Your task to perform on an android device: Is it going to rain tomorrow? Image 0: 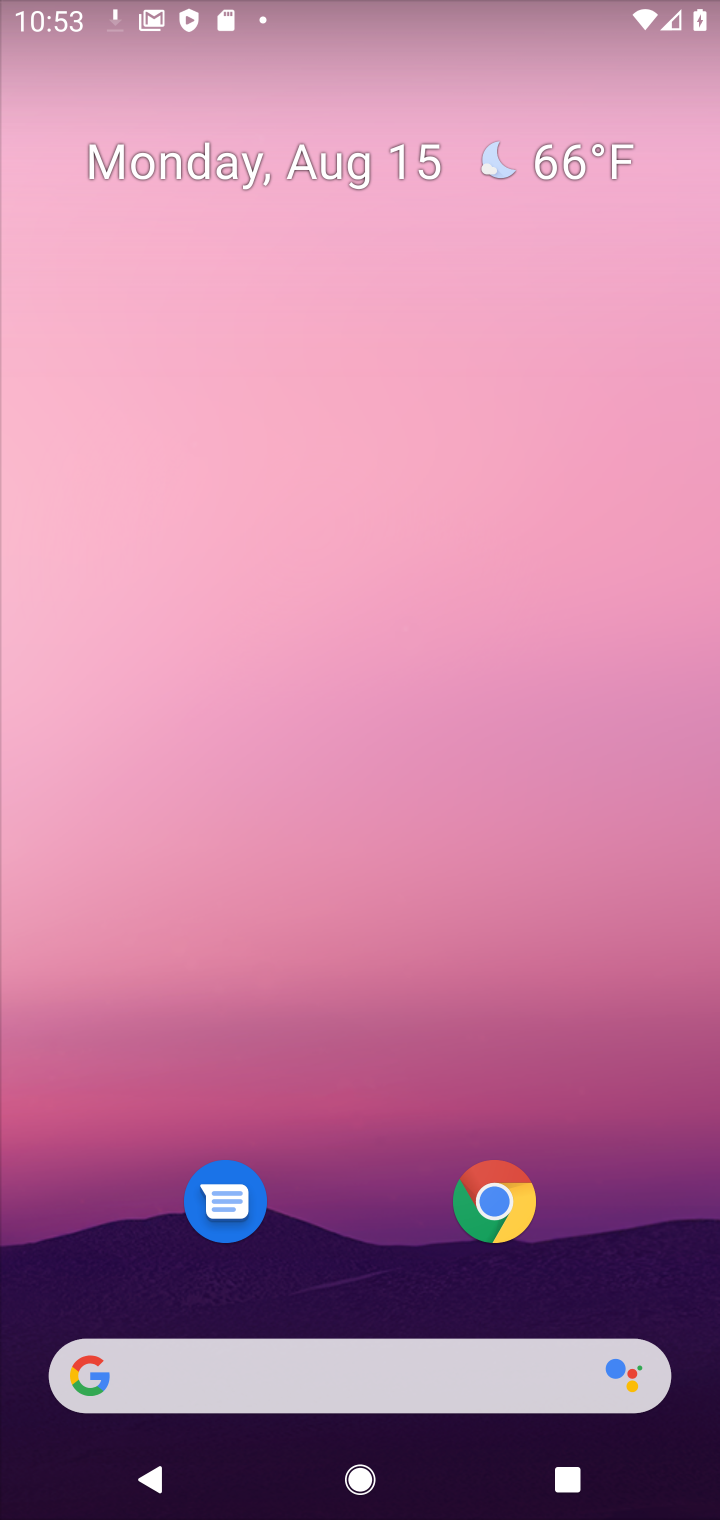
Step 0: drag from (322, 646) to (322, 416)
Your task to perform on an android device: Is it going to rain tomorrow? Image 1: 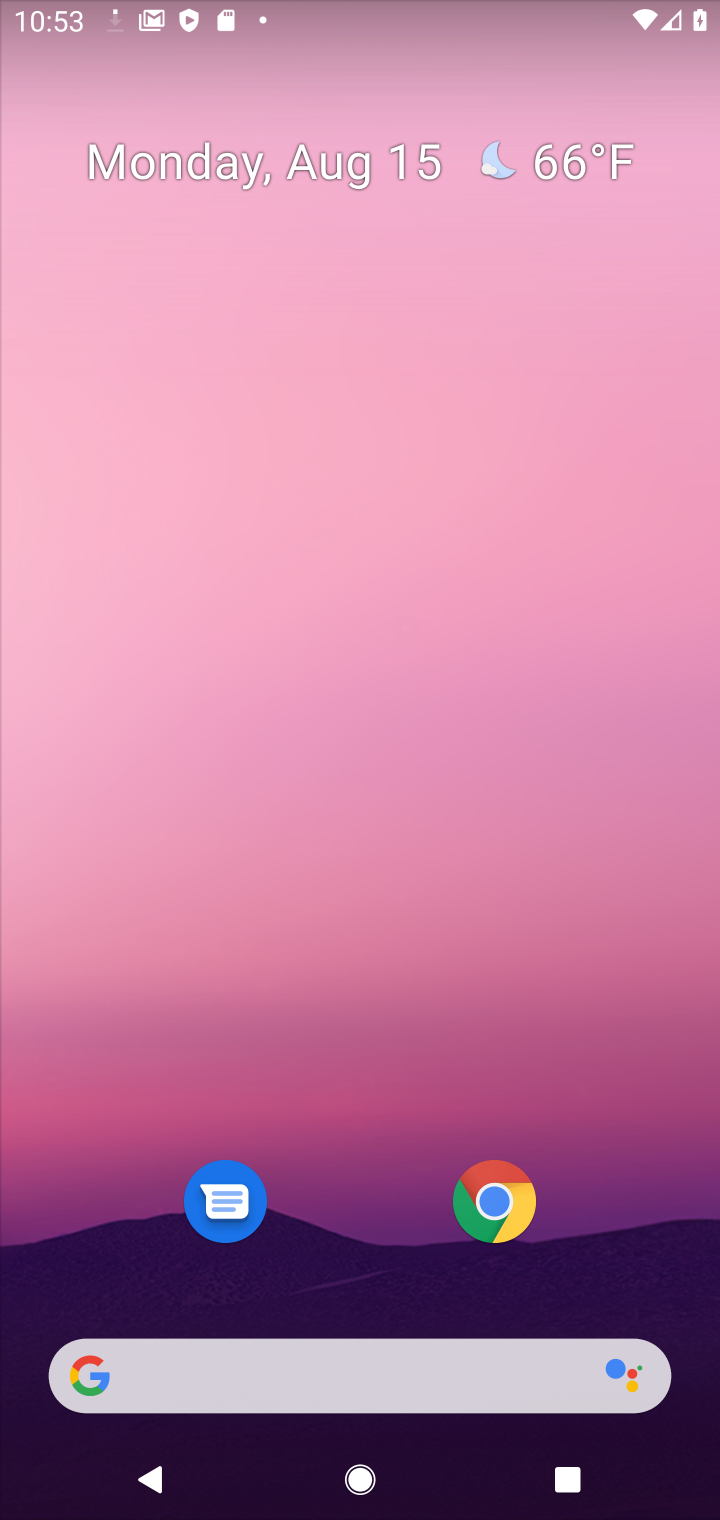
Step 1: click (361, 475)
Your task to perform on an android device: Is it going to rain tomorrow? Image 2: 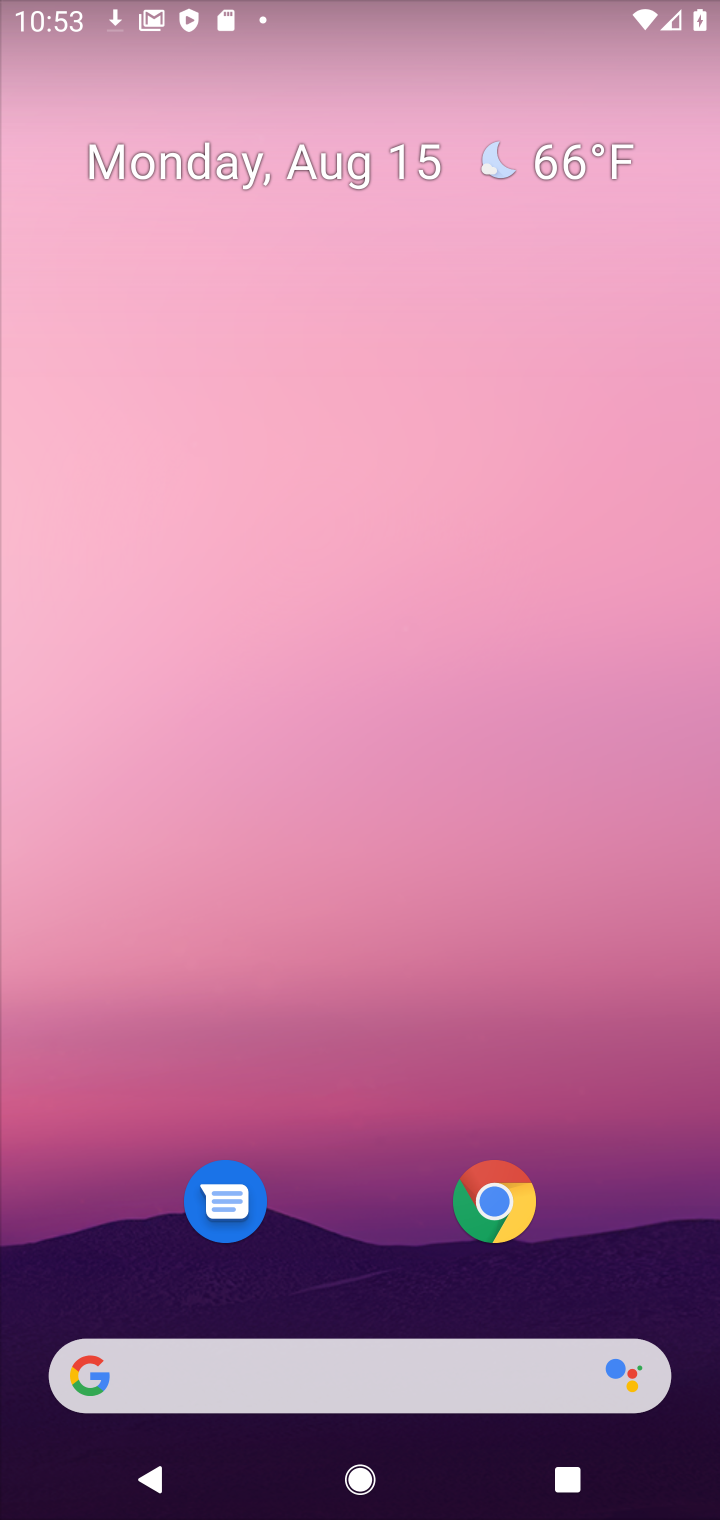
Step 2: drag from (360, 262) to (577, 24)
Your task to perform on an android device: Is it going to rain tomorrow? Image 3: 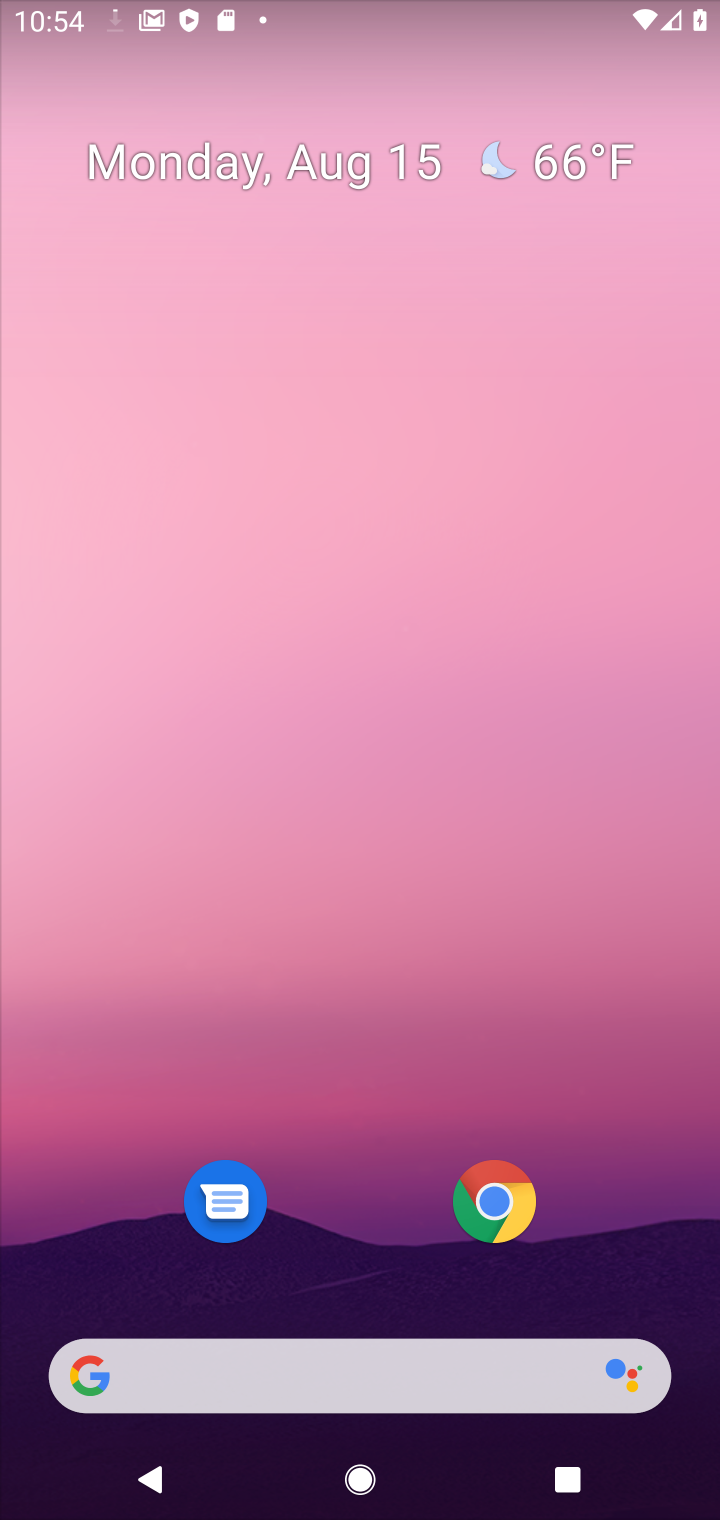
Step 3: drag from (454, 105) to (687, 615)
Your task to perform on an android device: Is it going to rain tomorrow? Image 4: 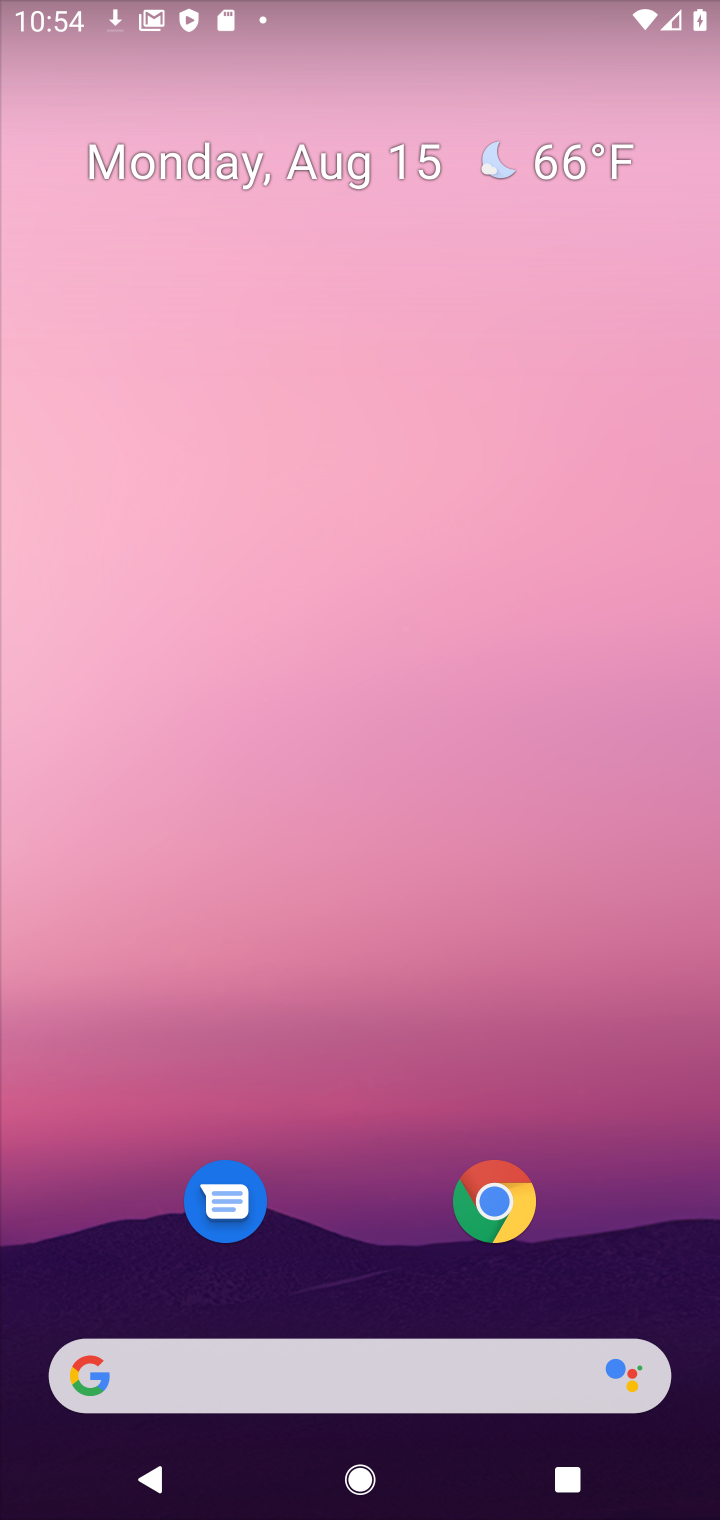
Step 4: drag from (414, 395) to (523, 0)
Your task to perform on an android device: Is it going to rain tomorrow? Image 5: 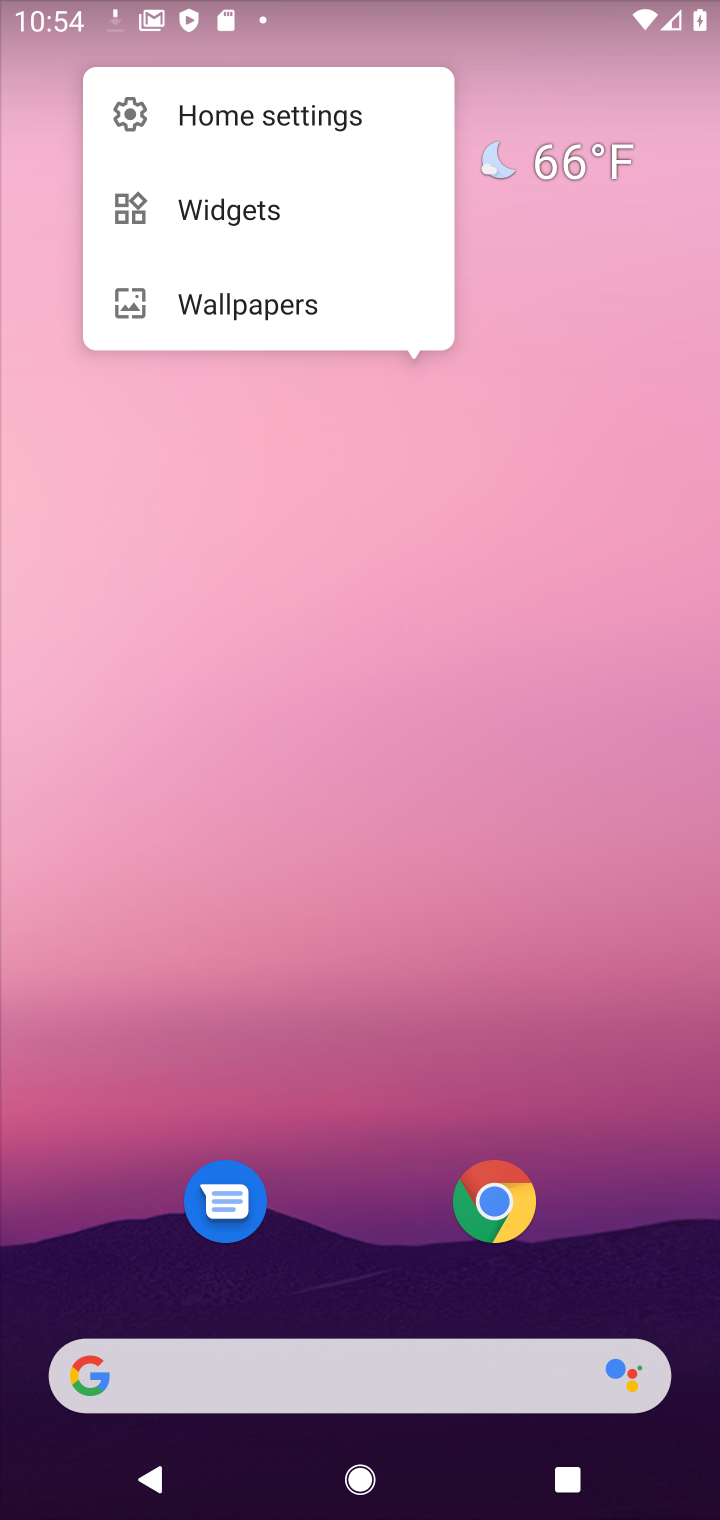
Step 5: click (463, 1242)
Your task to perform on an android device: Is it going to rain tomorrow? Image 6: 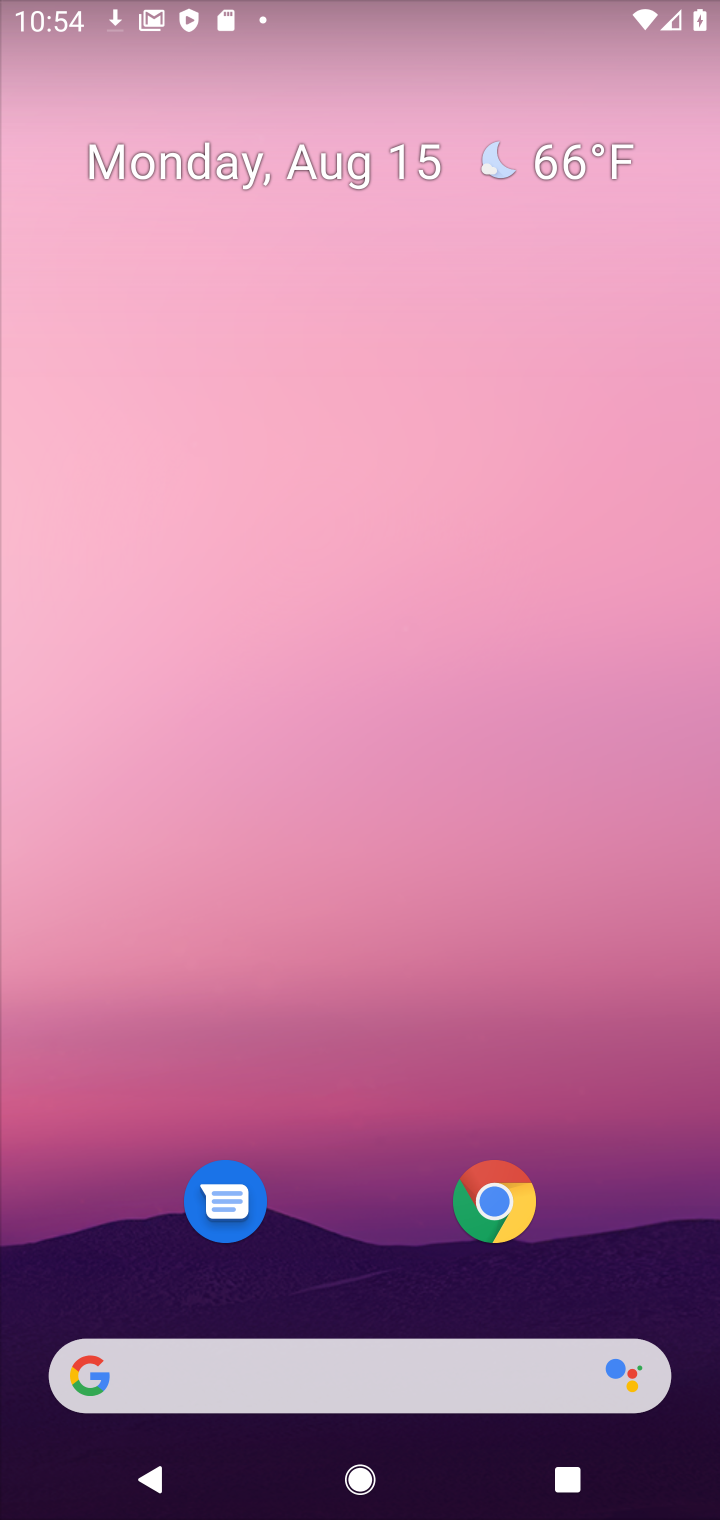
Step 6: drag from (177, 1364) to (675, 42)
Your task to perform on an android device: Is it going to rain tomorrow? Image 7: 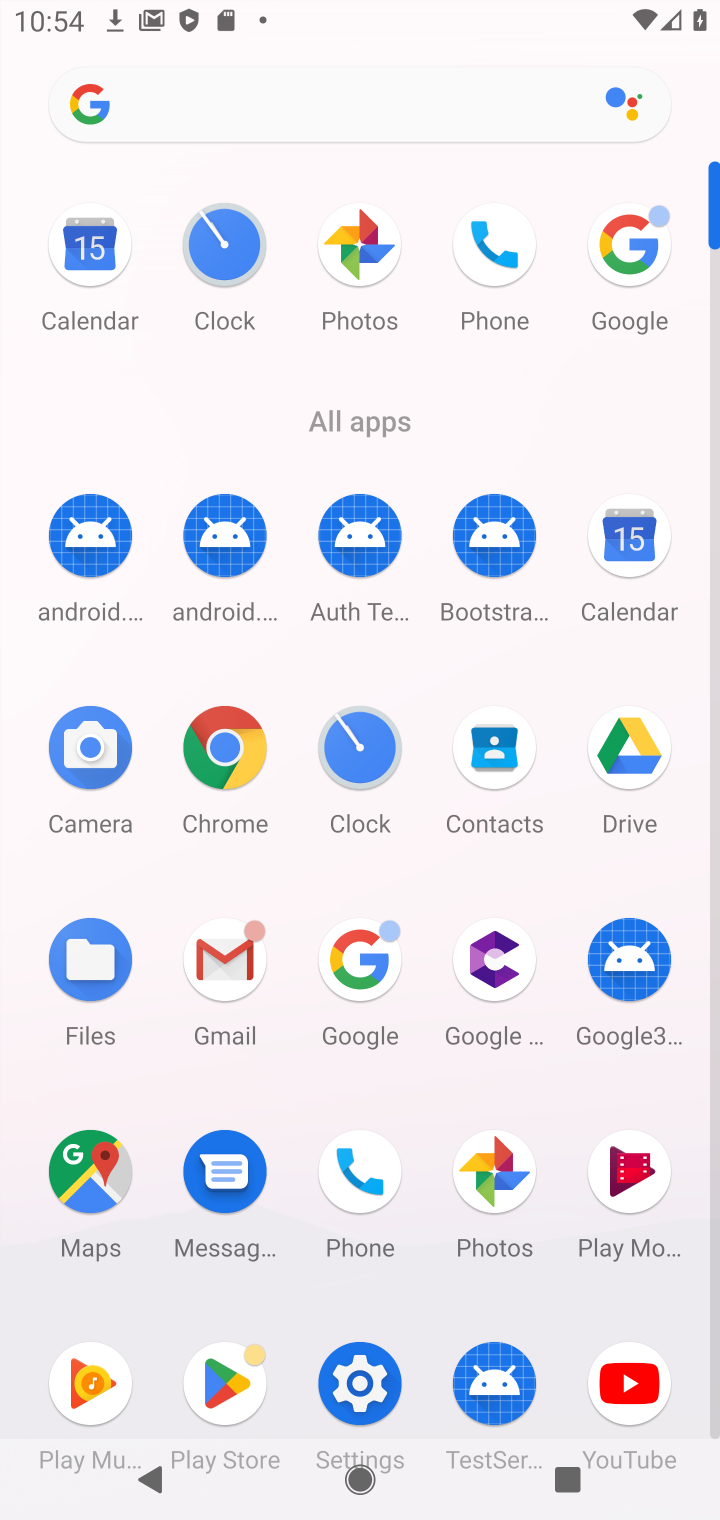
Step 7: click (368, 942)
Your task to perform on an android device: Is it going to rain tomorrow? Image 8: 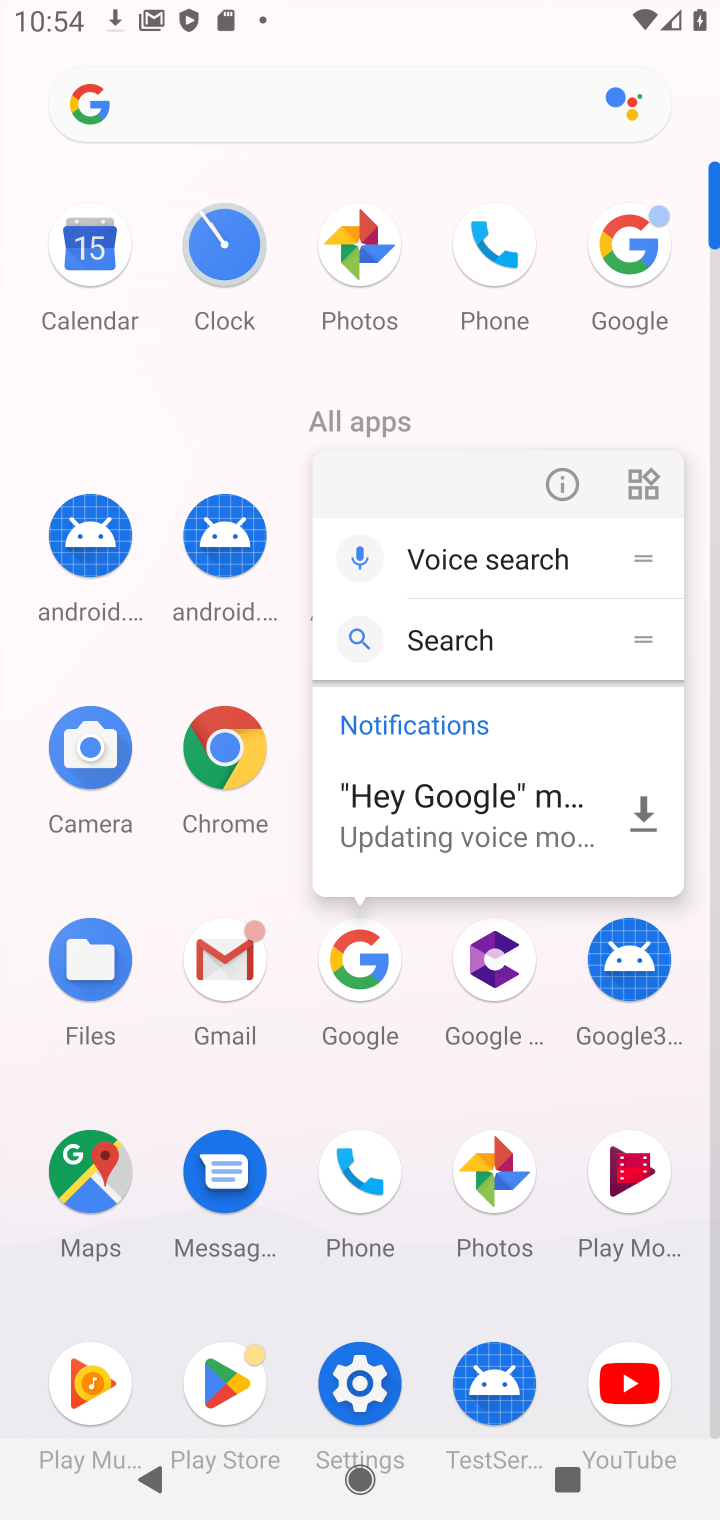
Step 8: click (345, 942)
Your task to perform on an android device: Is it going to rain tomorrow? Image 9: 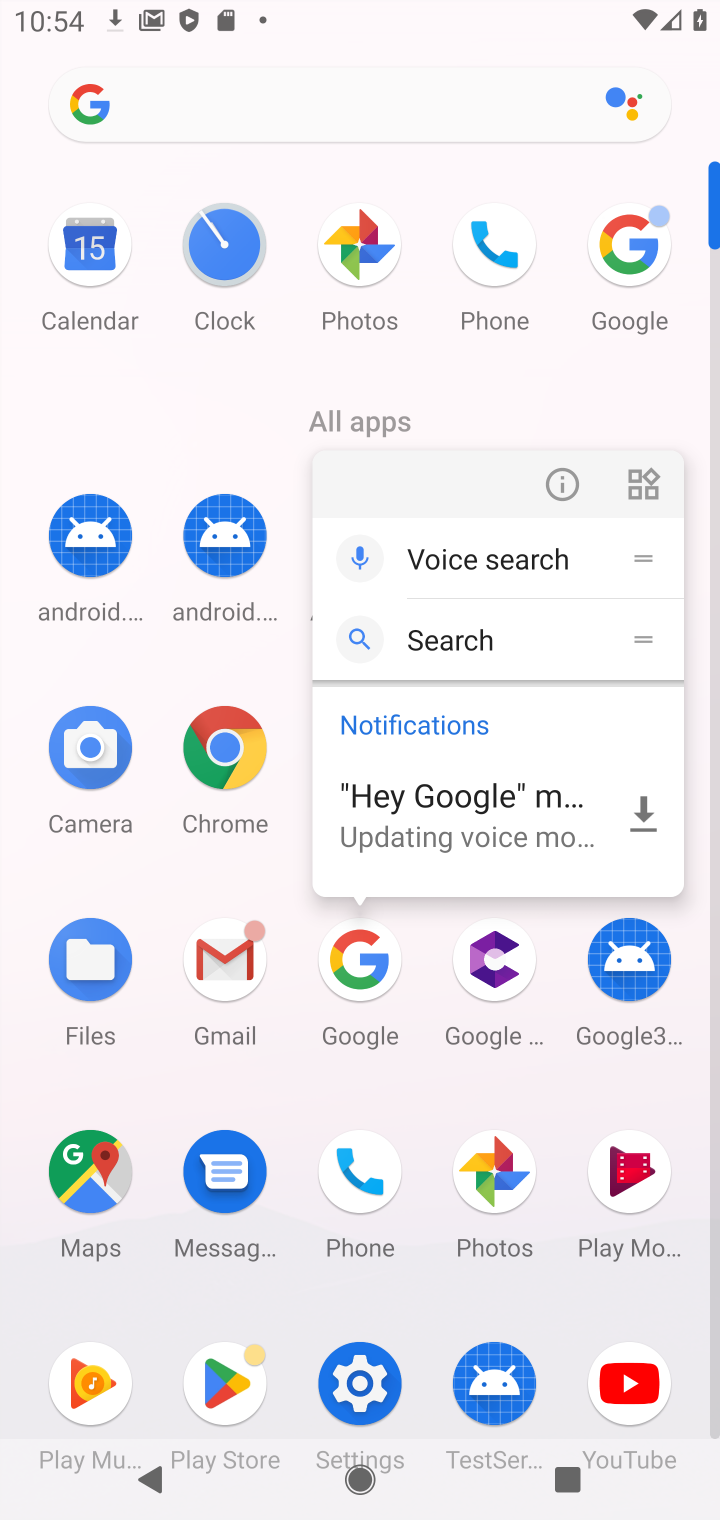
Step 9: click (358, 949)
Your task to perform on an android device: Is it going to rain tomorrow? Image 10: 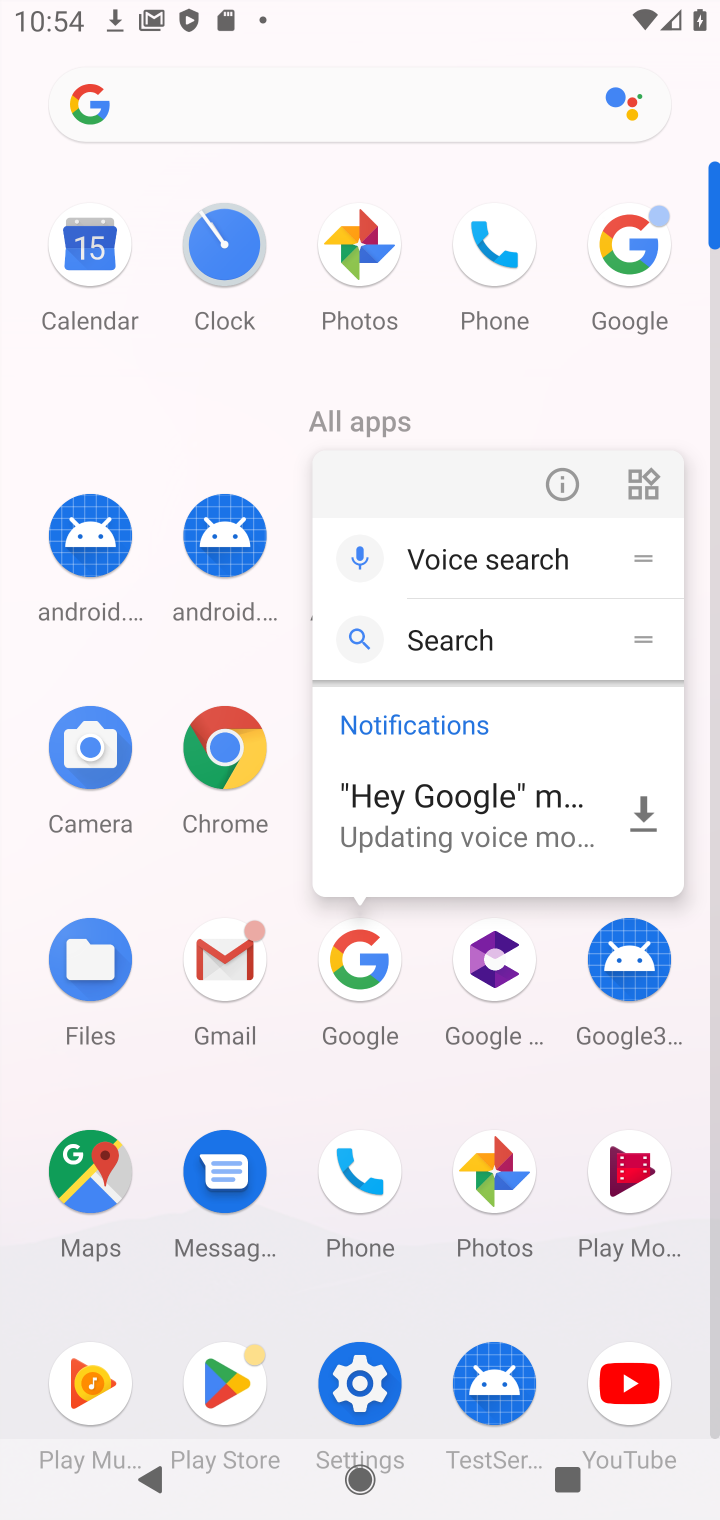
Step 10: click (363, 967)
Your task to perform on an android device: Is it going to rain tomorrow? Image 11: 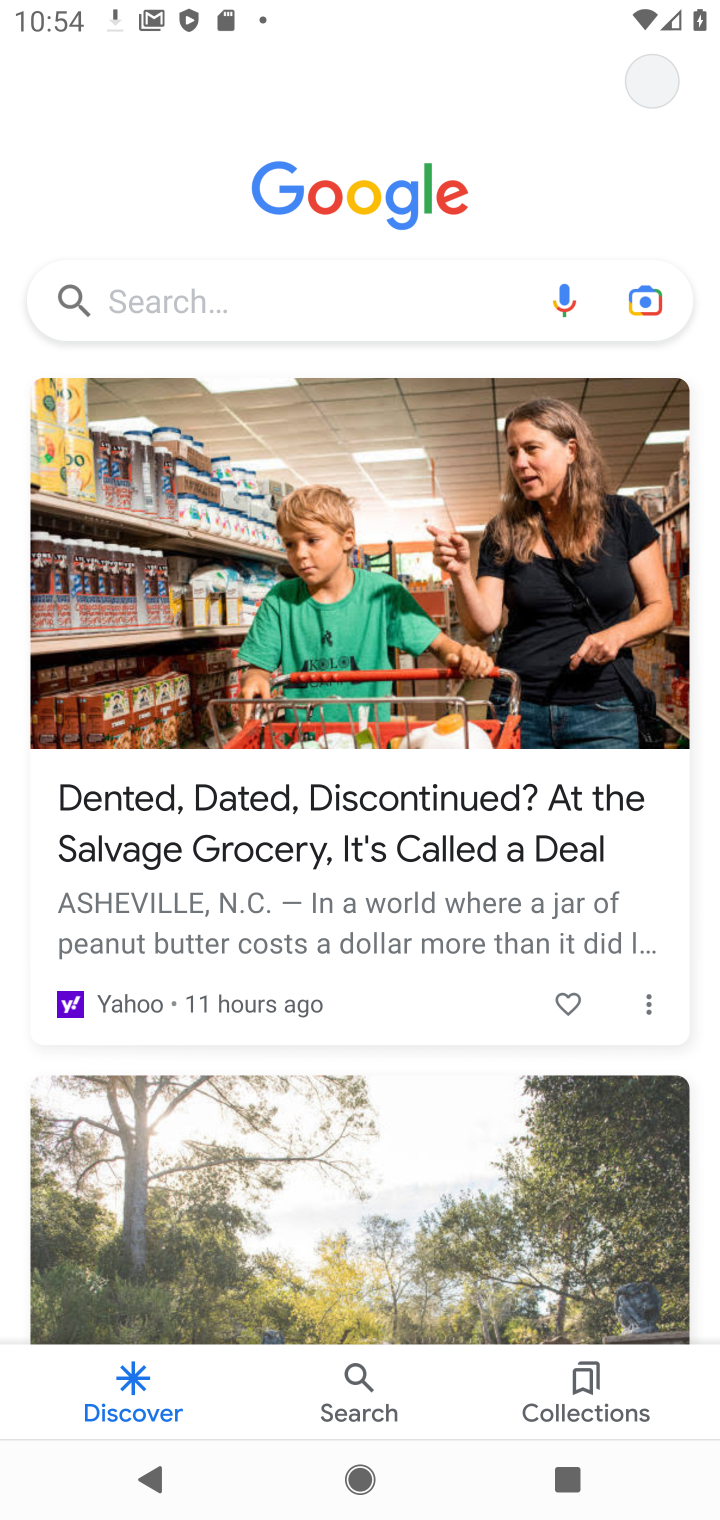
Step 11: click (306, 309)
Your task to perform on an android device: Is it going to rain tomorrow? Image 12: 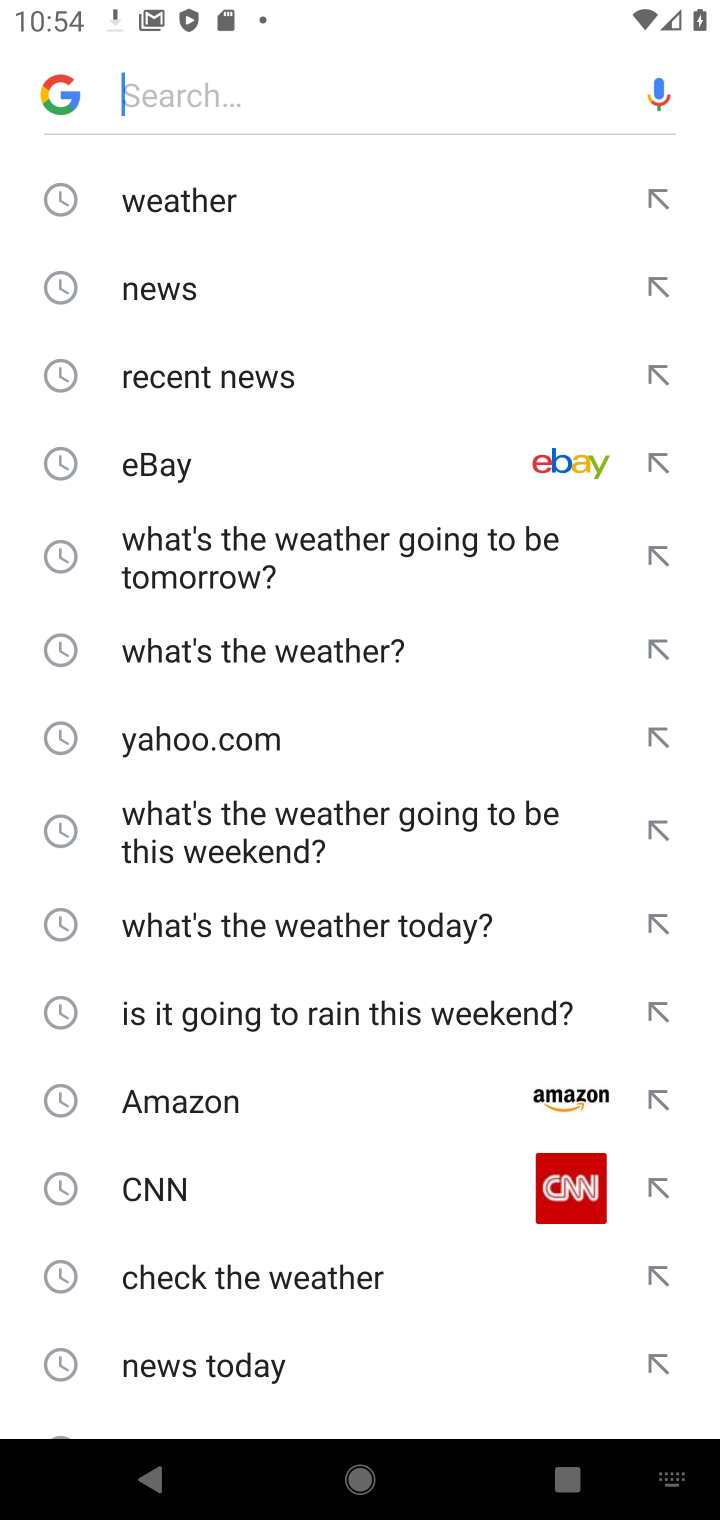
Step 12: click (226, 1013)
Your task to perform on an android device: Is it going to rain tomorrow? Image 13: 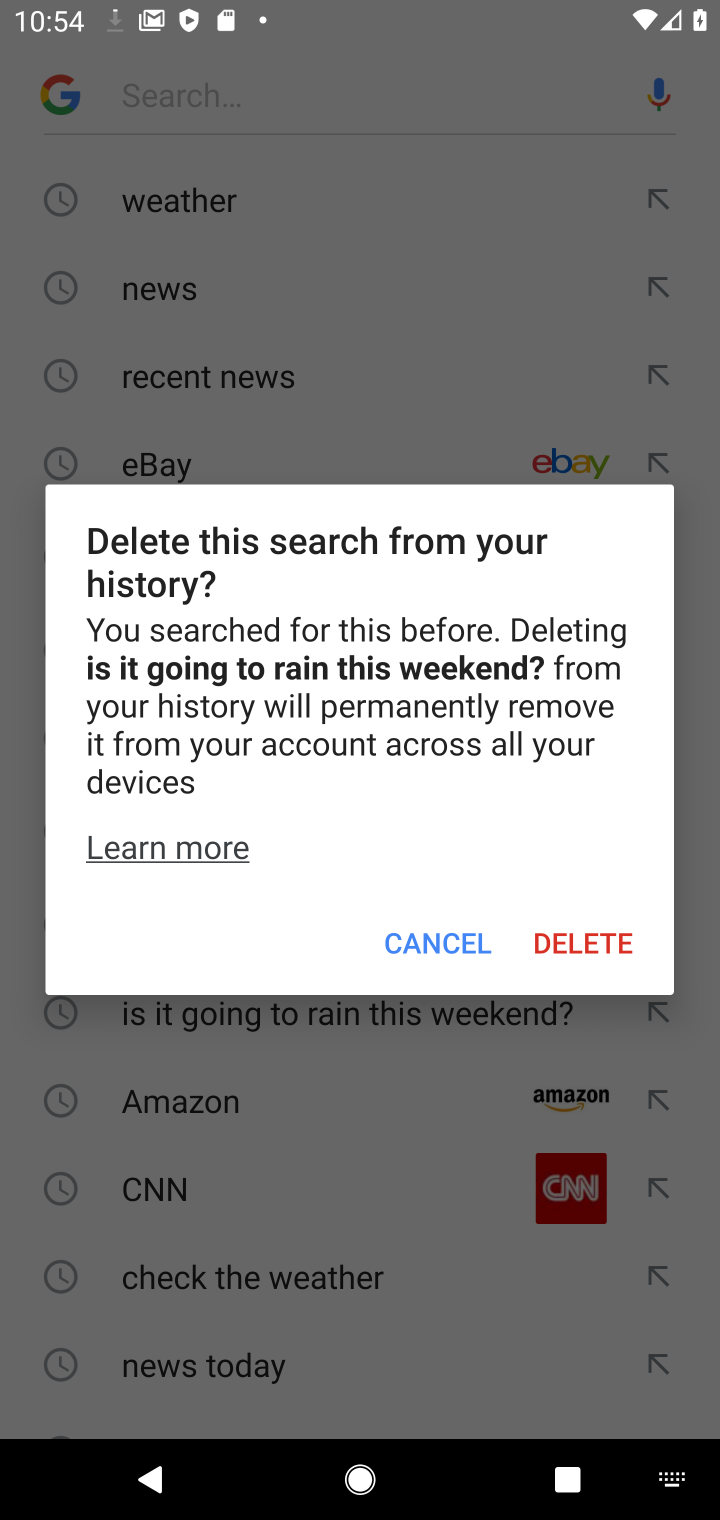
Step 13: click (449, 951)
Your task to perform on an android device: Is it going to rain tomorrow? Image 14: 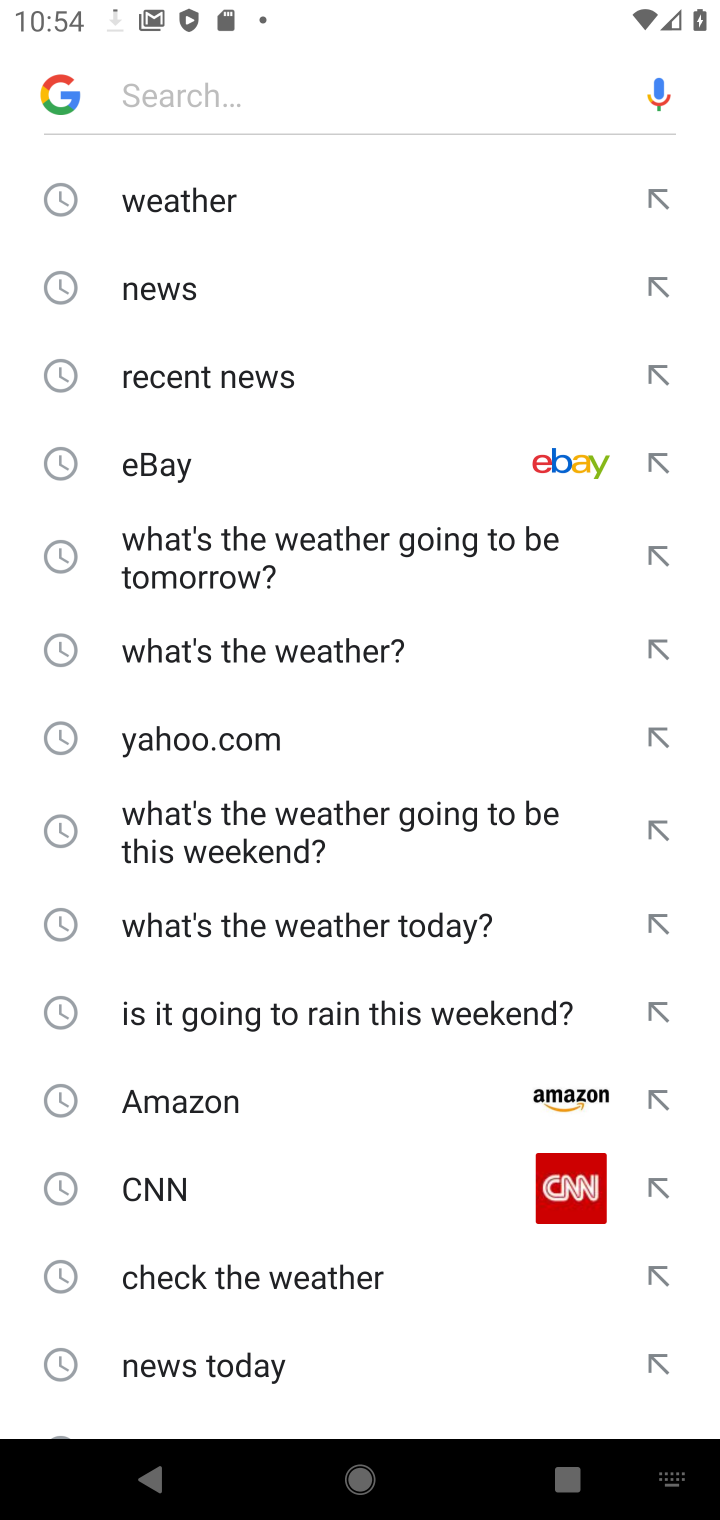
Step 14: drag from (325, 1253) to (380, 527)
Your task to perform on an android device: Is it going to rain tomorrow? Image 15: 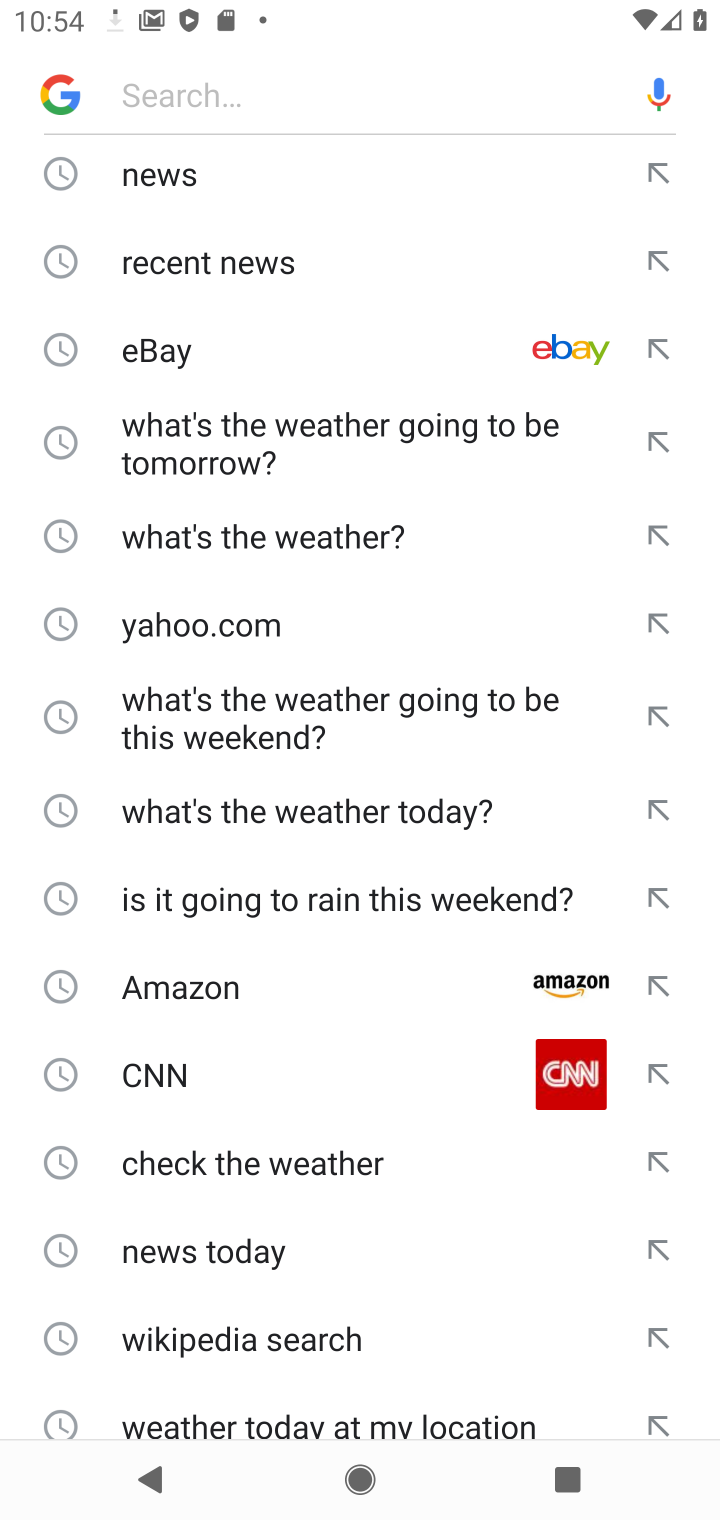
Step 15: drag from (432, 1000) to (429, 568)
Your task to perform on an android device: Is it going to rain tomorrow? Image 16: 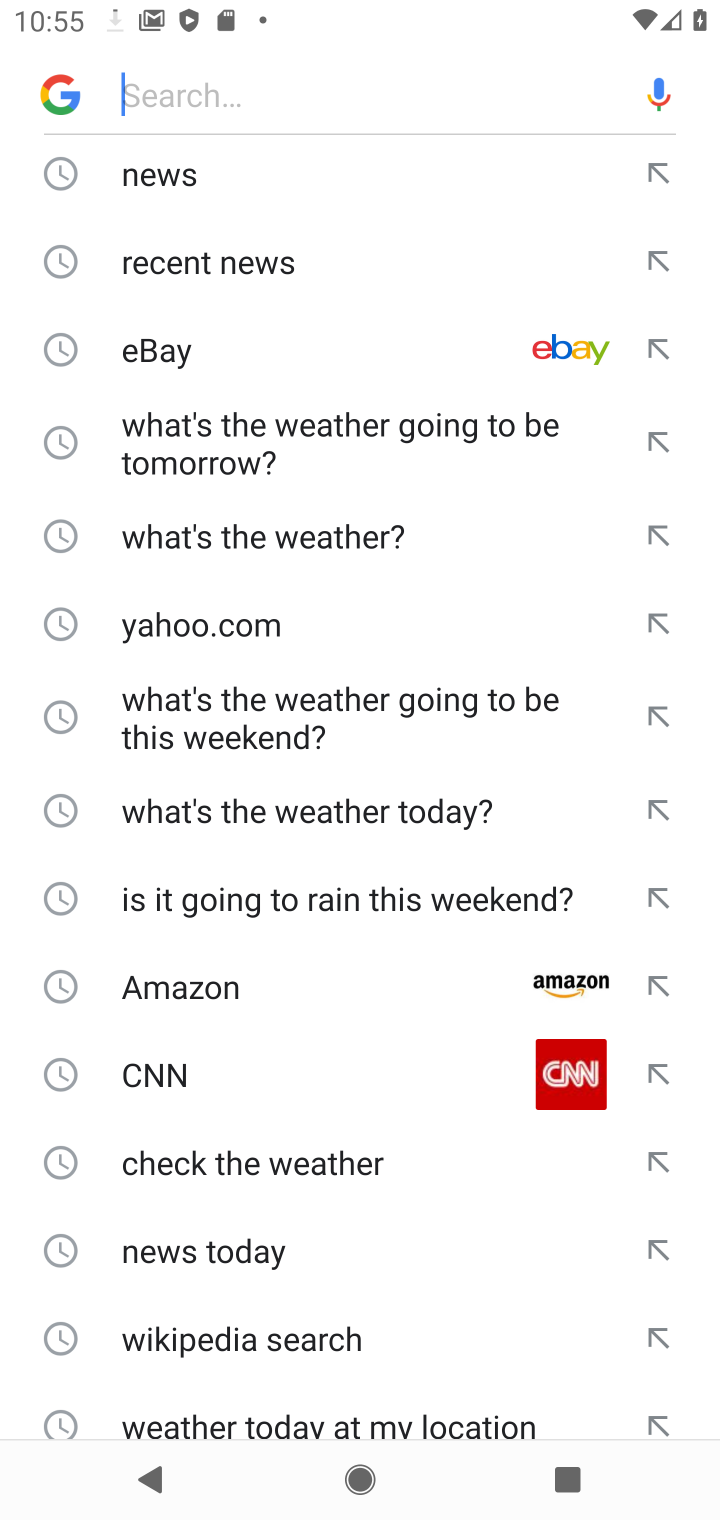
Step 16: drag from (139, 1414) to (233, 696)
Your task to perform on an android device: Is it going to rain tomorrow? Image 17: 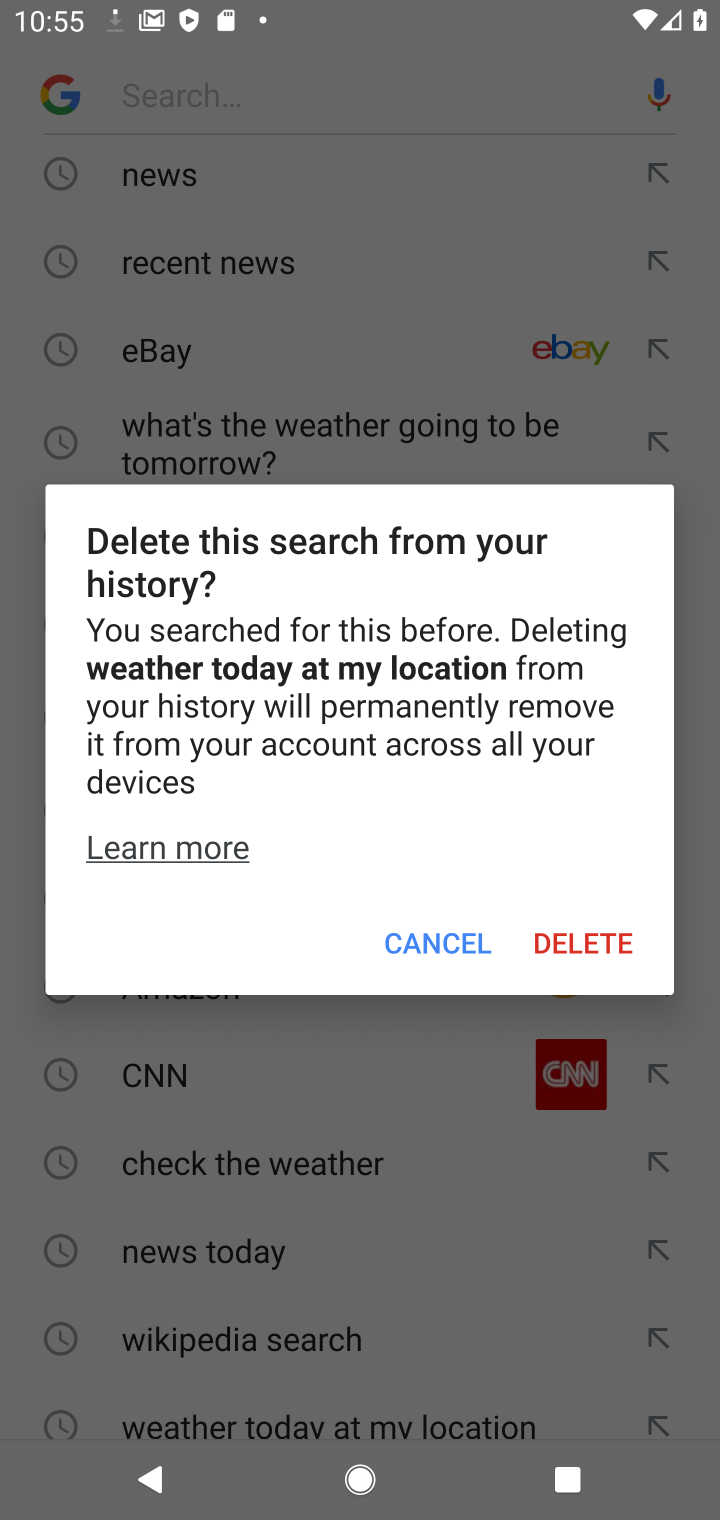
Step 17: click (411, 939)
Your task to perform on an android device: Is it going to rain tomorrow? Image 18: 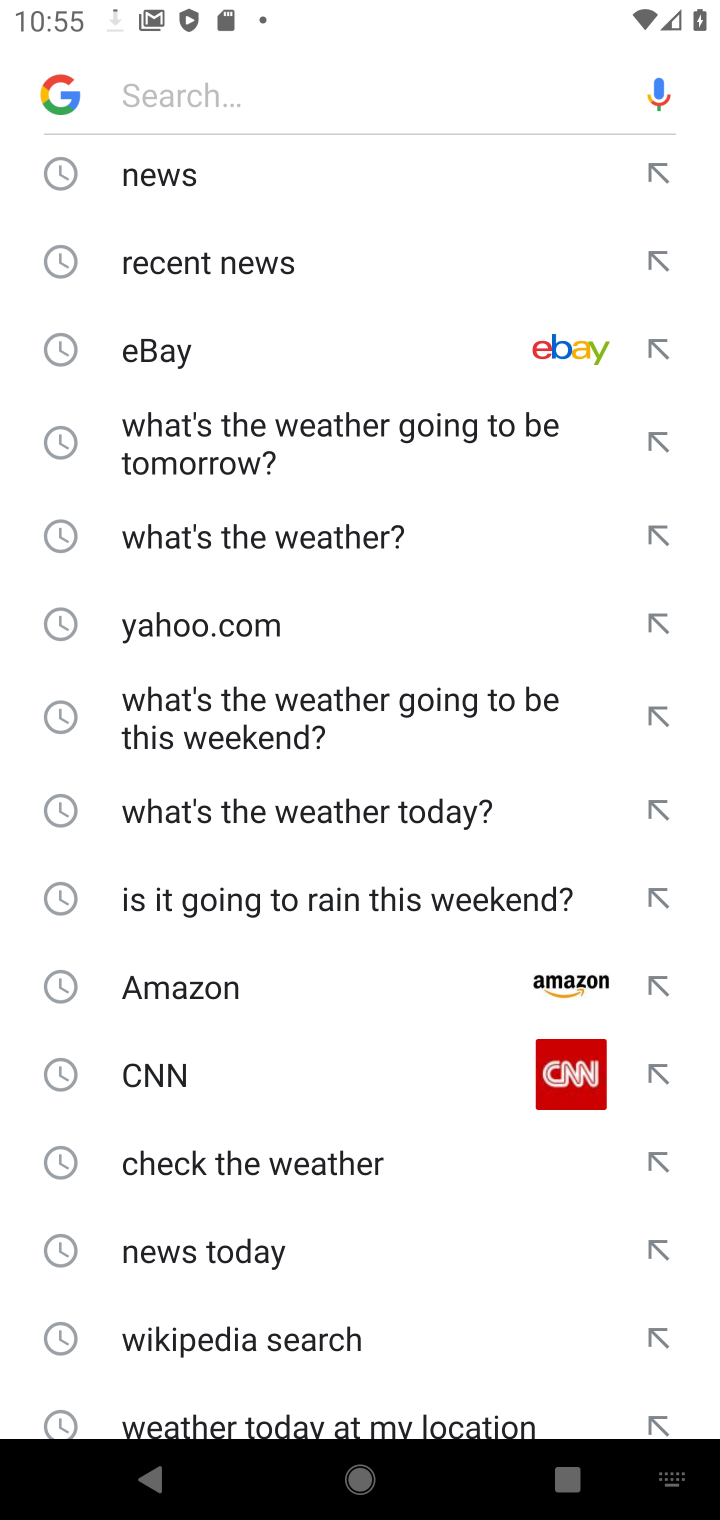
Step 18: drag from (310, 1343) to (349, 342)
Your task to perform on an android device: Is it going to rain tomorrow? Image 19: 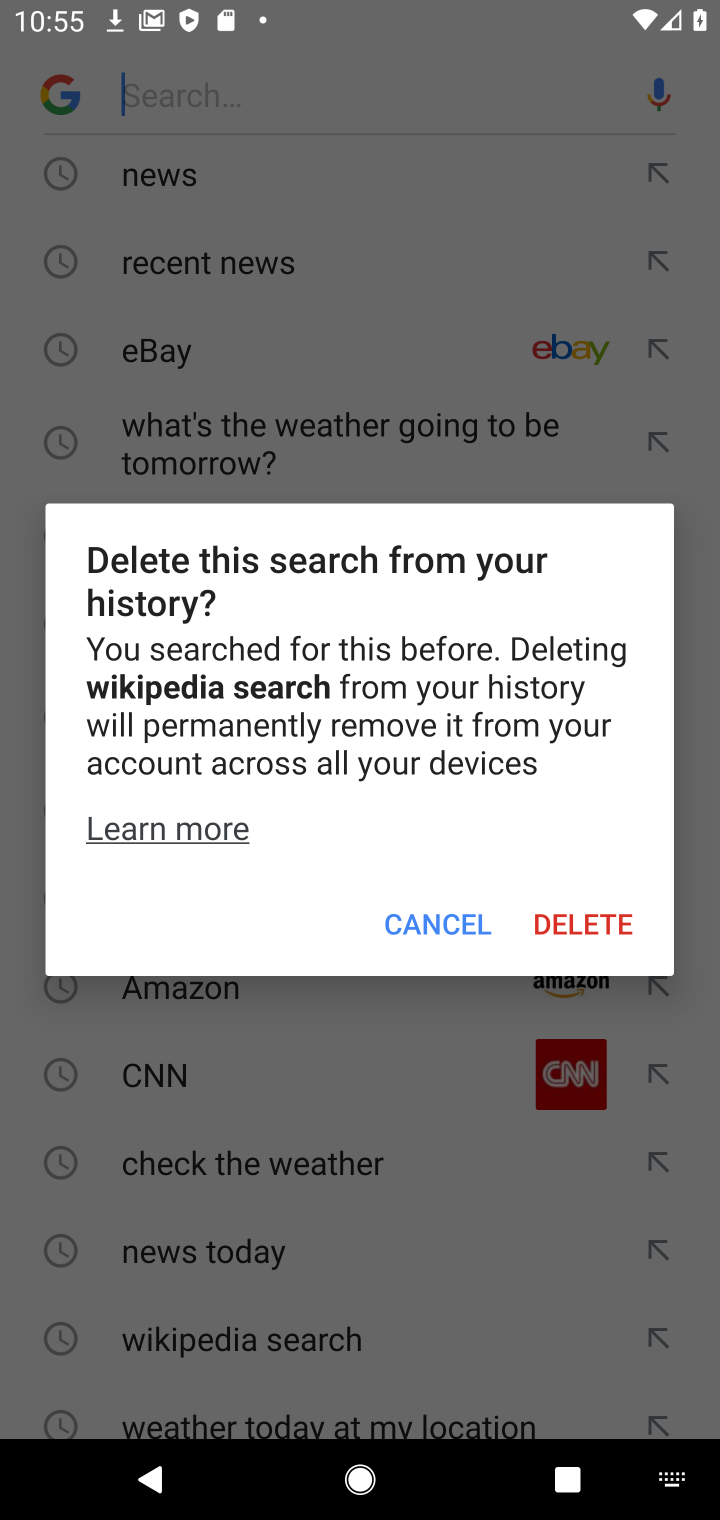
Step 19: click (349, 892)
Your task to perform on an android device: Is it going to rain tomorrow? Image 20: 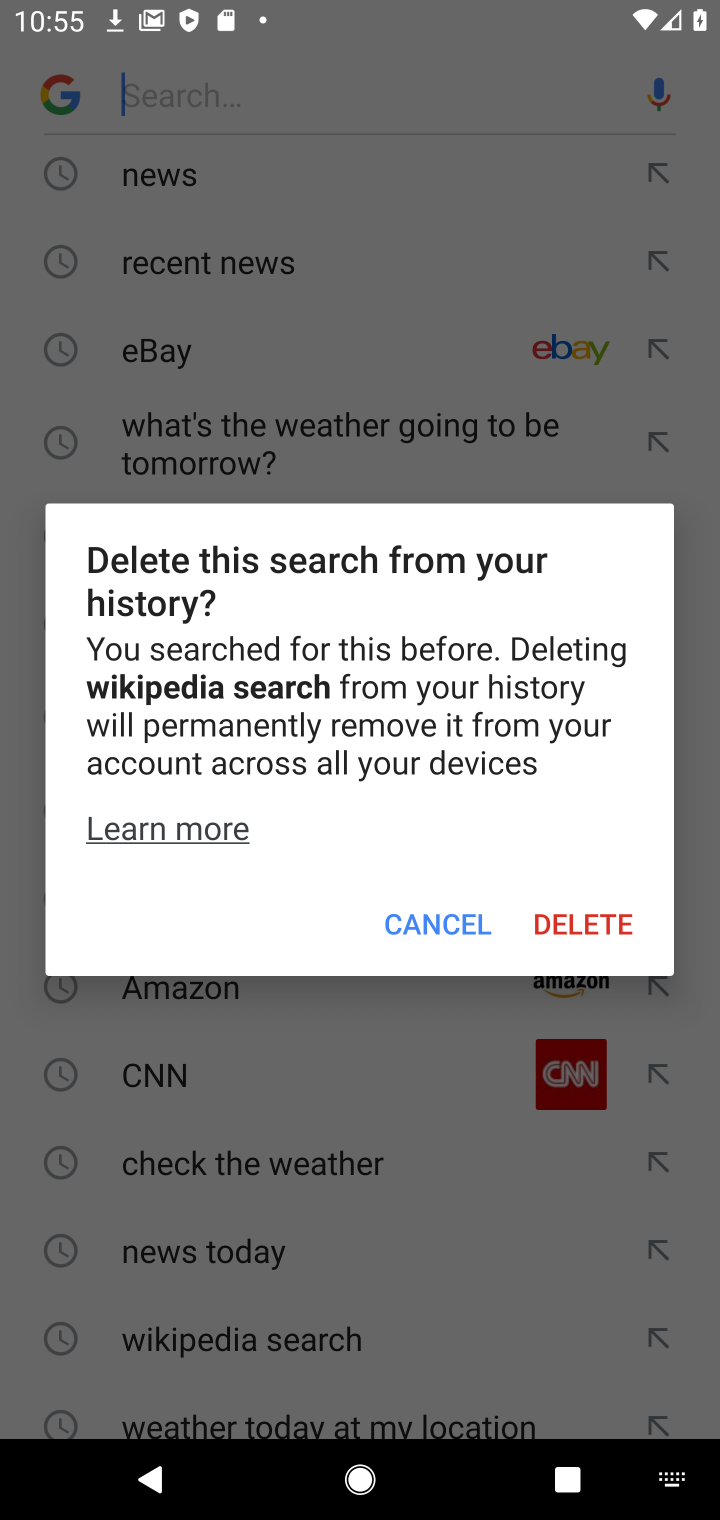
Step 20: click (398, 918)
Your task to perform on an android device: Is it going to rain tomorrow? Image 21: 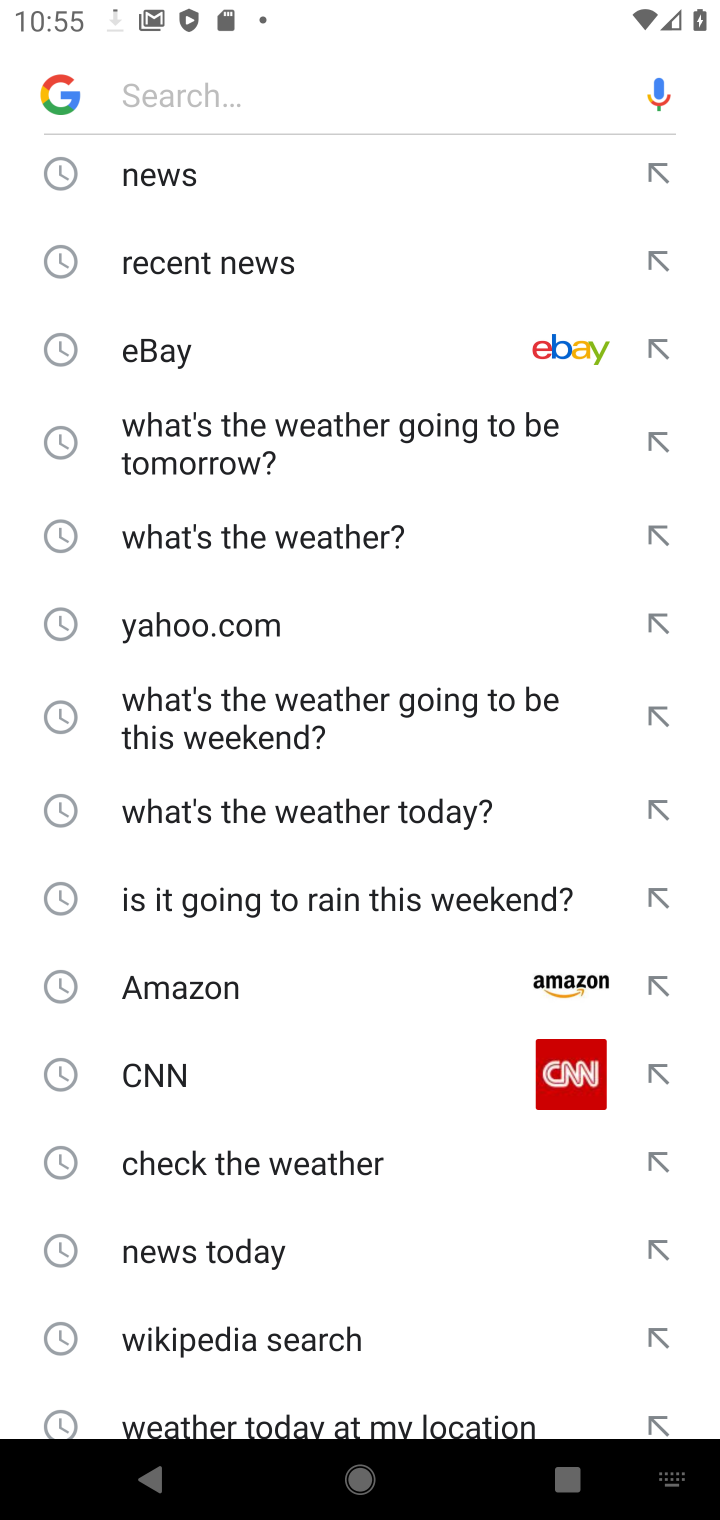
Step 21: click (352, 909)
Your task to perform on an android device: Is it going to rain tomorrow? Image 22: 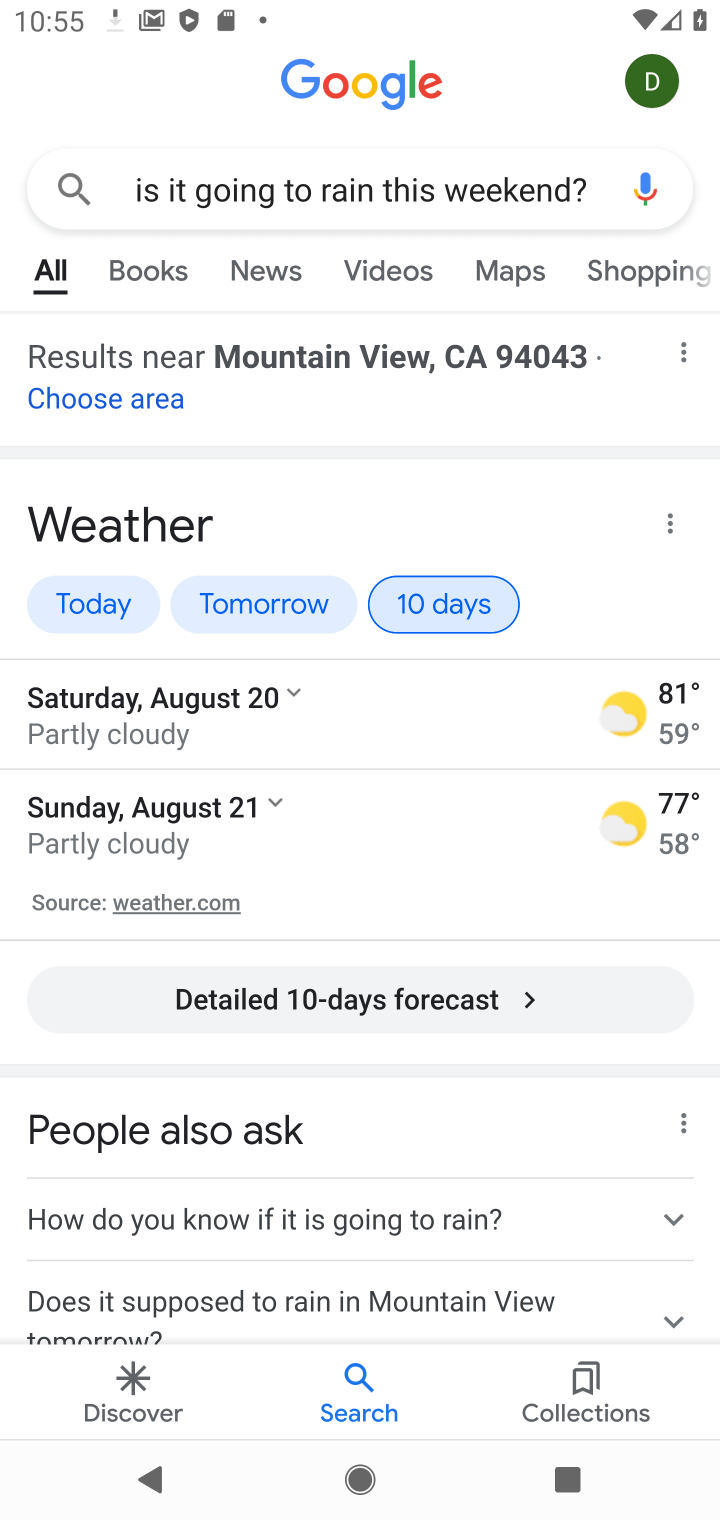
Step 22: click (278, 600)
Your task to perform on an android device: Is it going to rain tomorrow? Image 23: 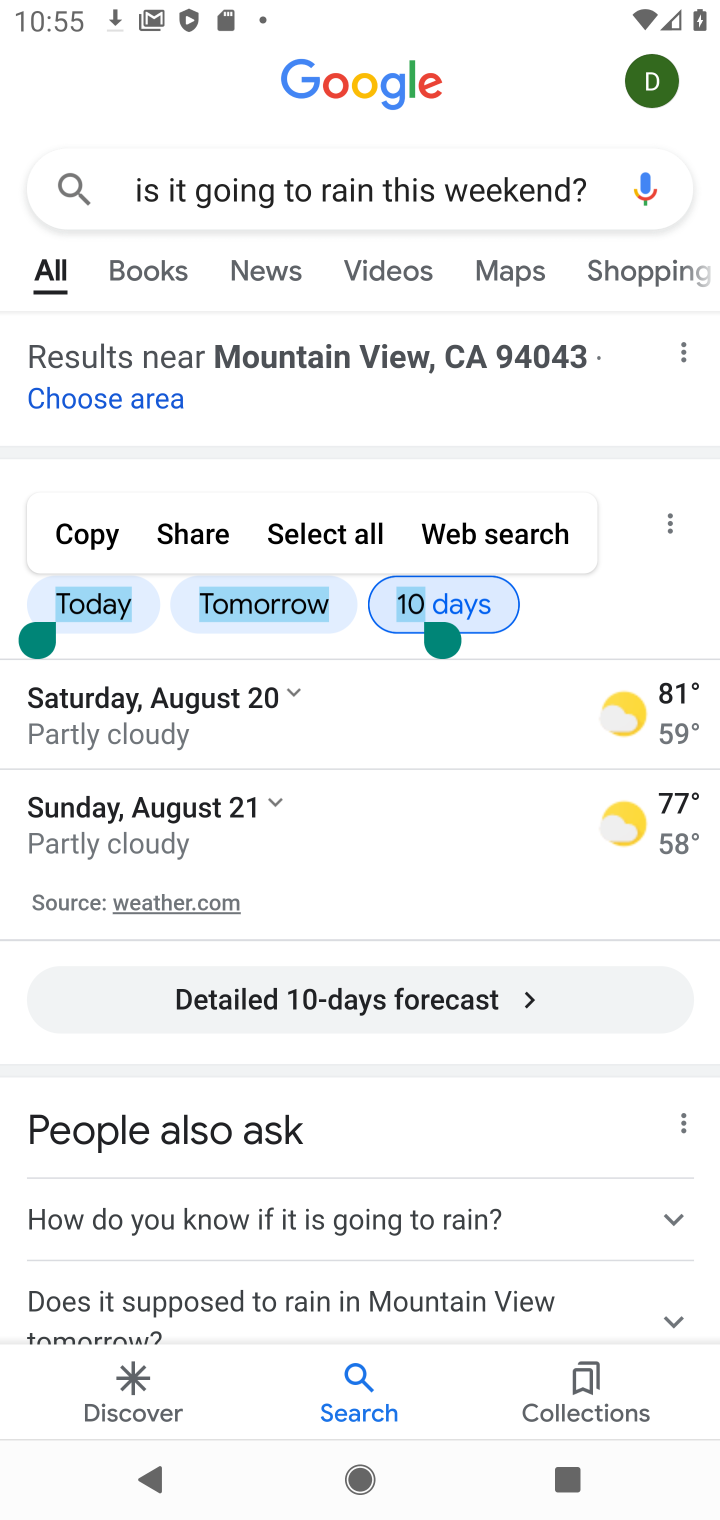
Step 23: click (217, 592)
Your task to perform on an android device: Is it going to rain tomorrow? Image 24: 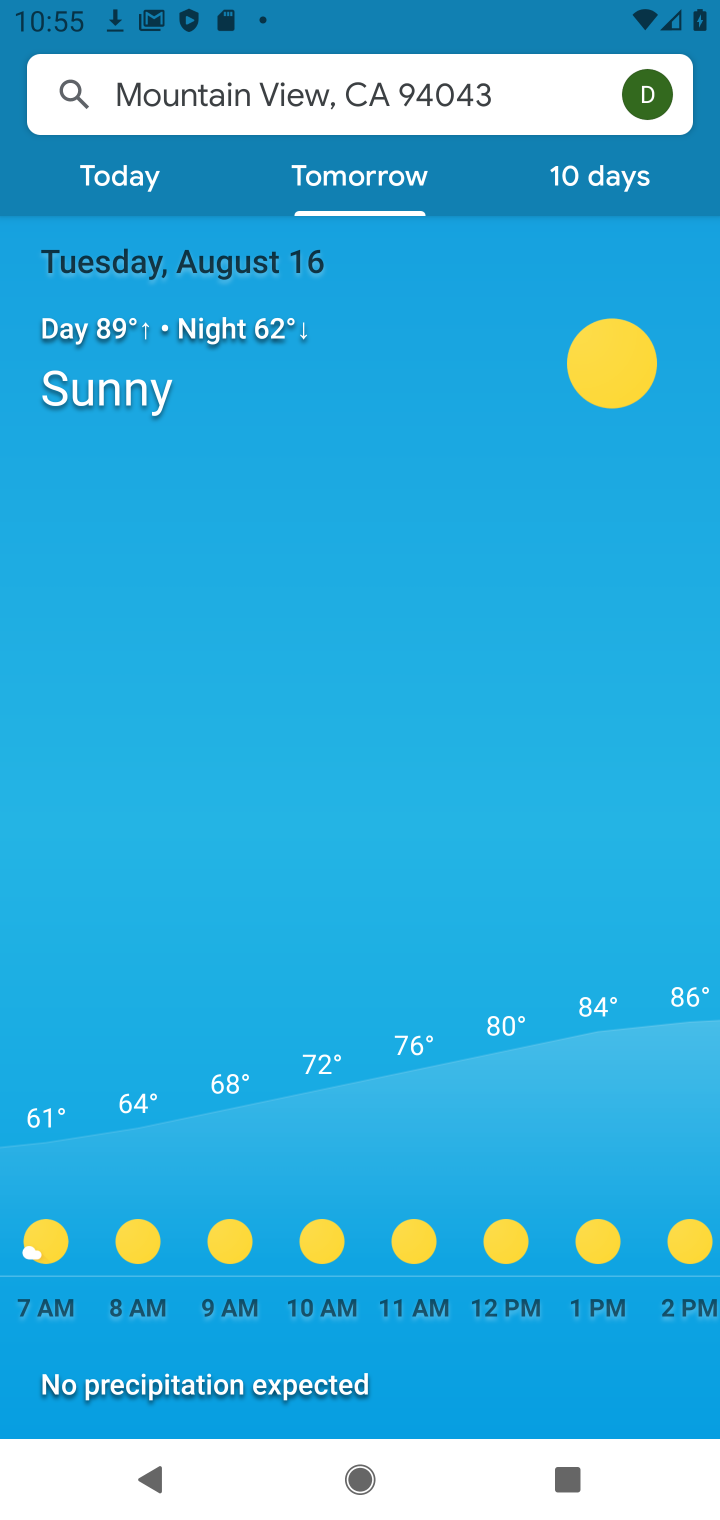
Step 24: task complete